Your task to perform on an android device: Add macbook pro 13 inch to the cart on walmart.com Image 0: 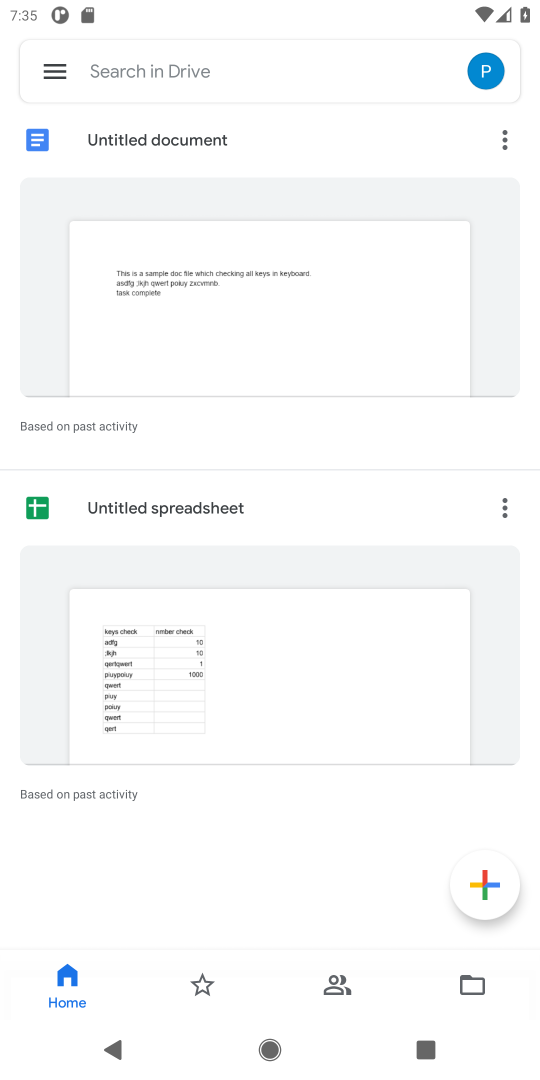
Step 0: press home button
Your task to perform on an android device: Add macbook pro 13 inch to the cart on walmart.com Image 1: 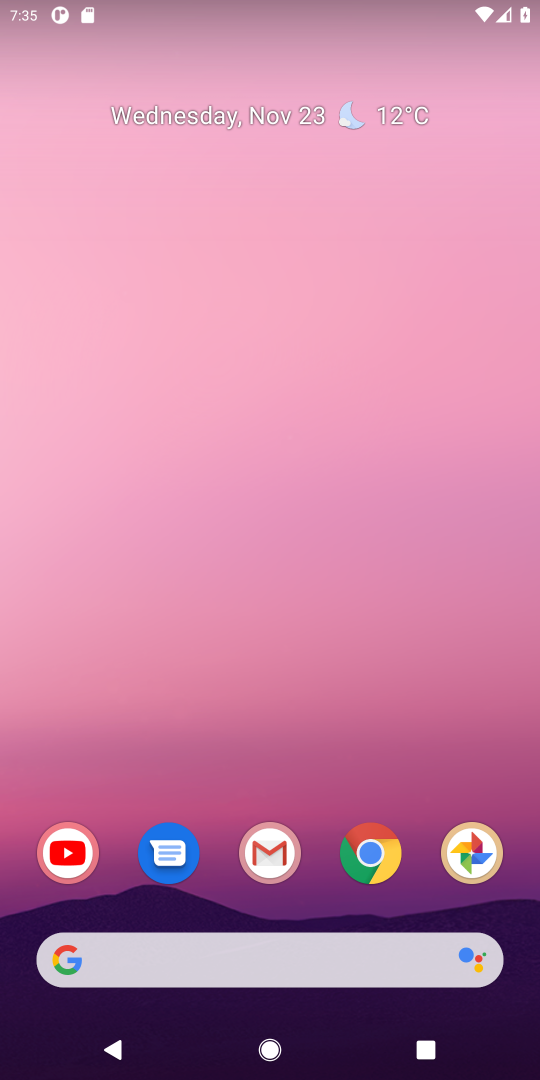
Step 1: click (372, 850)
Your task to perform on an android device: Add macbook pro 13 inch to the cart on walmart.com Image 2: 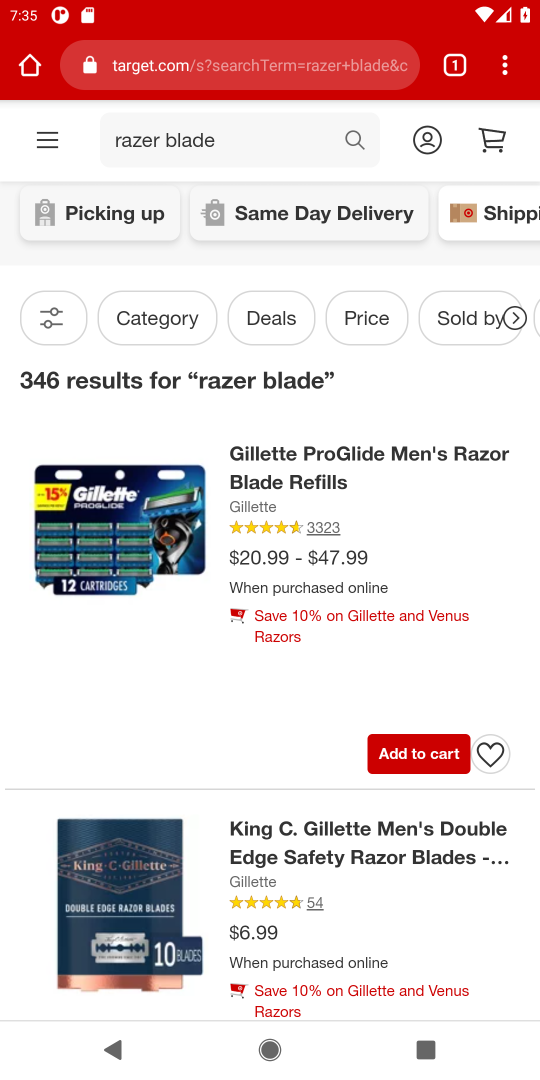
Step 2: click (251, 79)
Your task to perform on an android device: Add macbook pro 13 inch to the cart on walmart.com Image 3: 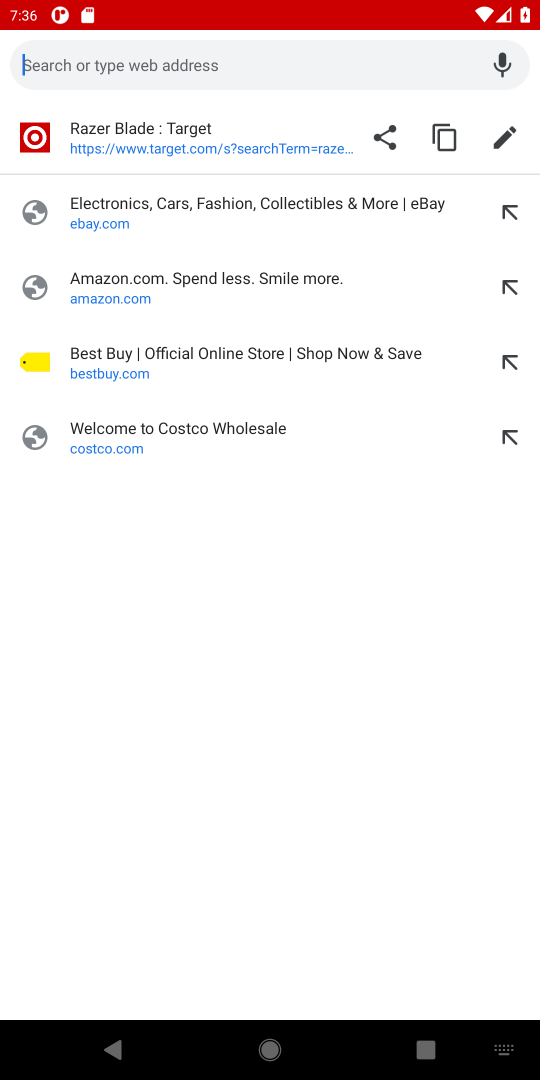
Step 3: type "walmart.com"
Your task to perform on an android device: Add macbook pro 13 inch to the cart on walmart.com Image 4: 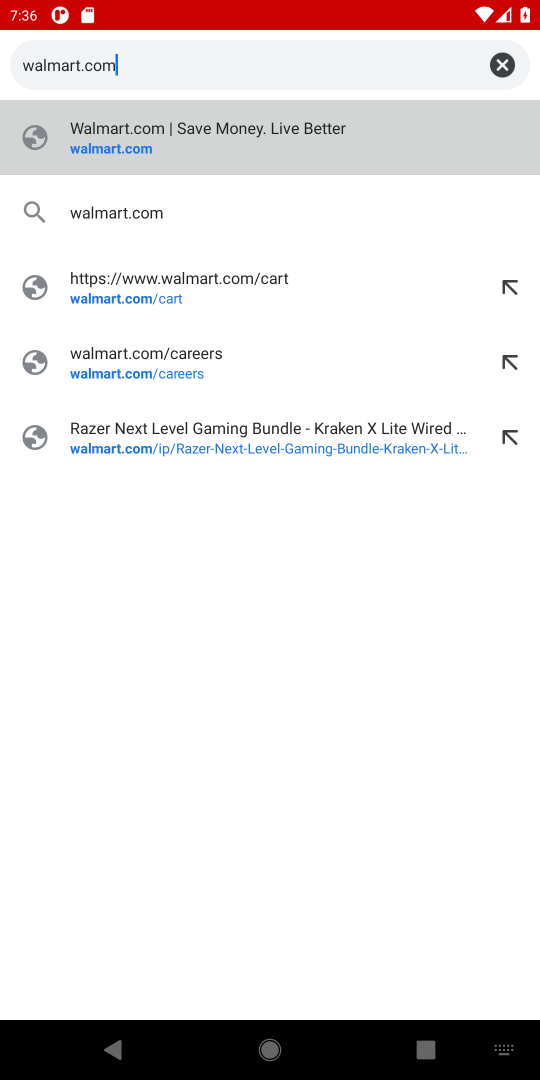
Step 4: click (101, 159)
Your task to perform on an android device: Add macbook pro 13 inch to the cart on walmart.com Image 5: 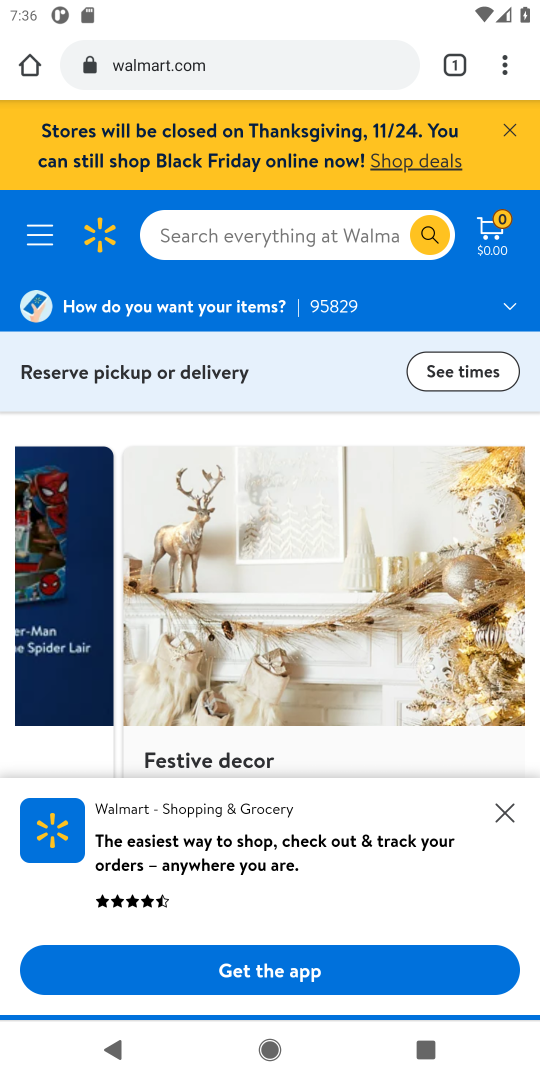
Step 5: click (252, 228)
Your task to perform on an android device: Add macbook pro 13 inch to the cart on walmart.com Image 6: 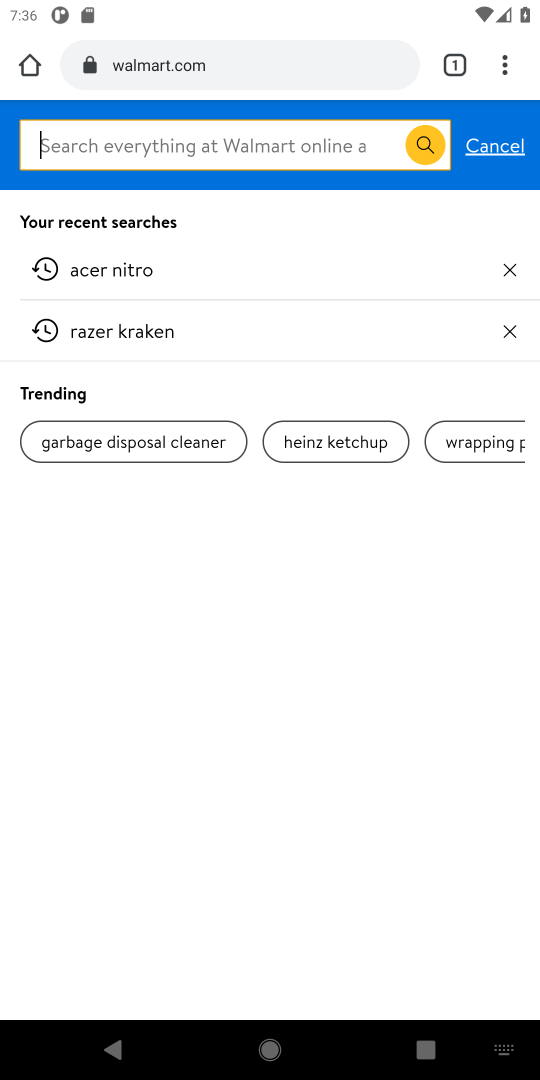
Step 6: type "macbook pro 13 inch"
Your task to perform on an android device: Add macbook pro 13 inch to the cart on walmart.com Image 7: 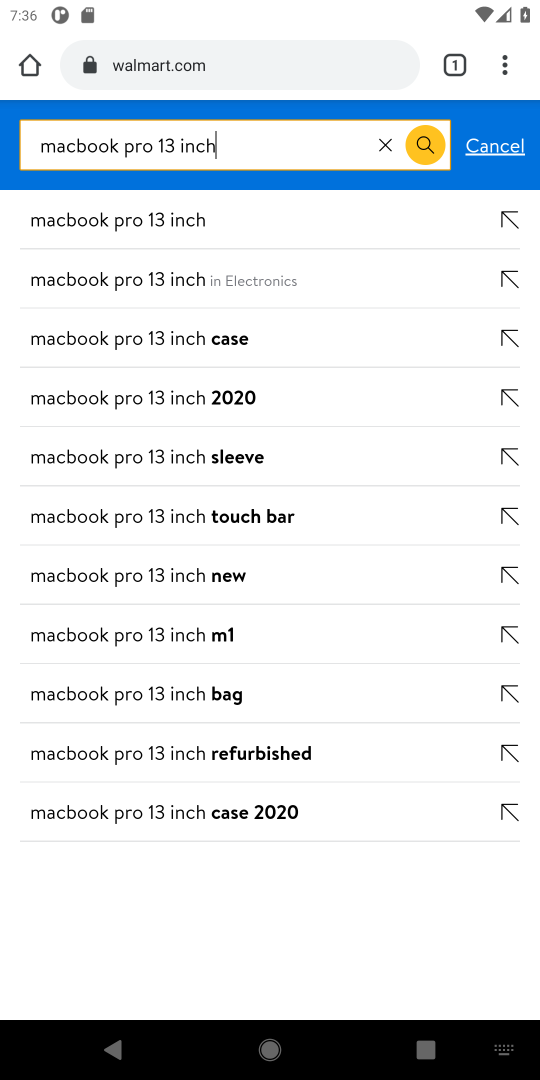
Step 7: click (139, 221)
Your task to perform on an android device: Add macbook pro 13 inch to the cart on walmart.com Image 8: 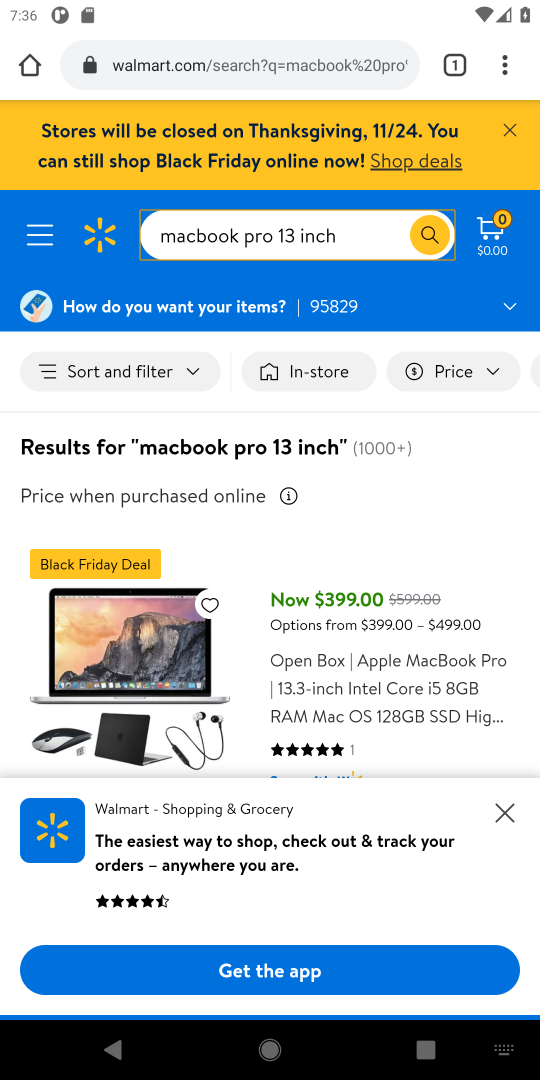
Step 8: drag from (235, 577) to (243, 362)
Your task to perform on an android device: Add macbook pro 13 inch to the cart on walmart.com Image 9: 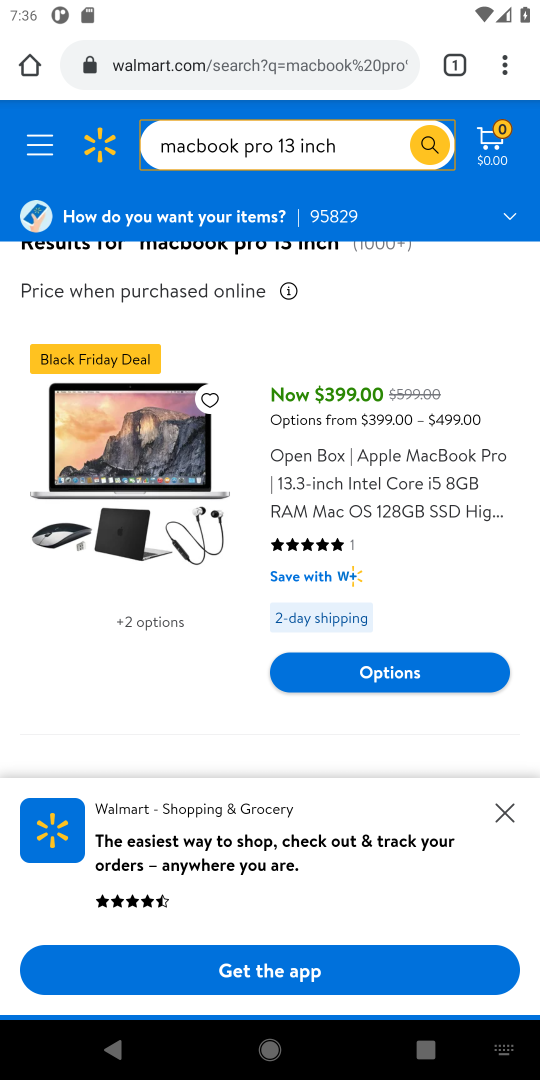
Step 9: drag from (193, 662) to (181, 361)
Your task to perform on an android device: Add macbook pro 13 inch to the cart on walmart.com Image 10: 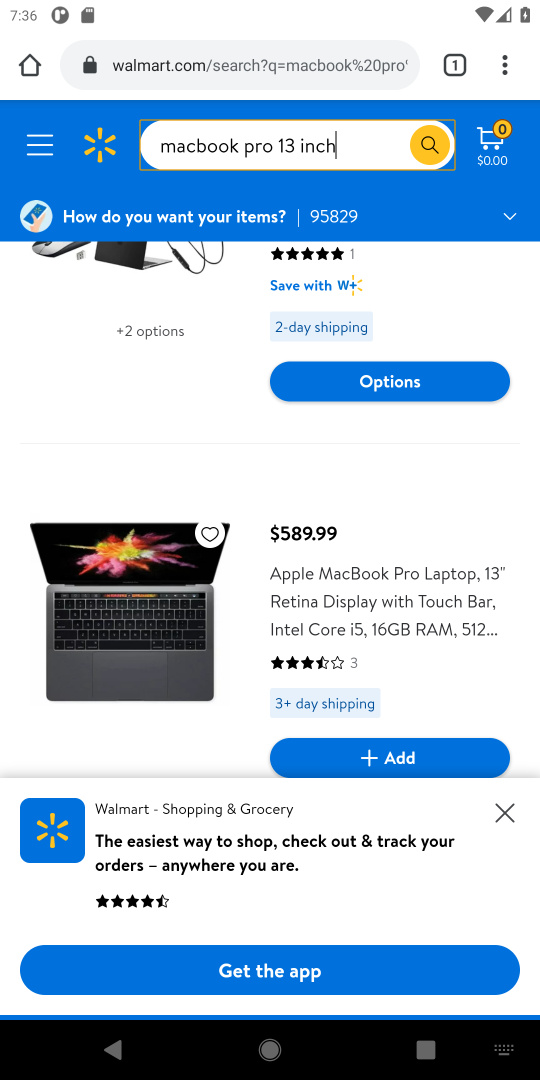
Step 10: click (348, 753)
Your task to perform on an android device: Add macbook pro 13 inch to the cart on walmart.com Image 11: 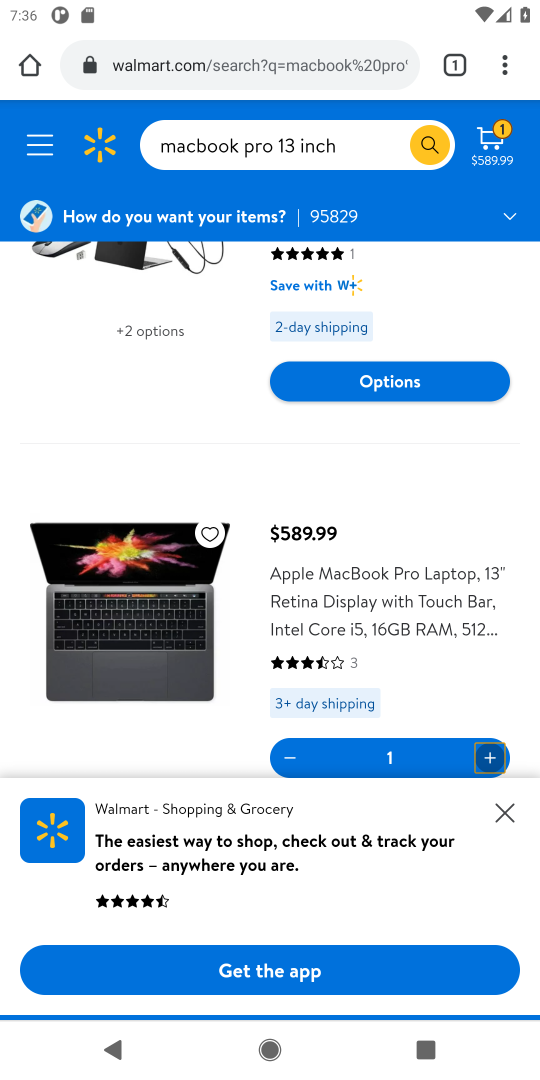
Step 11: task complete